Your task to perform on an android device: Open Yahoo.com Image 0: 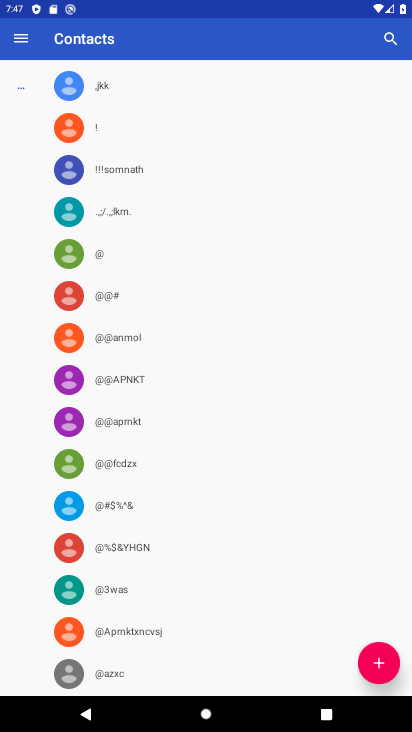
Step 0: press home button
Your task to perform on an android device: Open Yahoo.com Image 1: 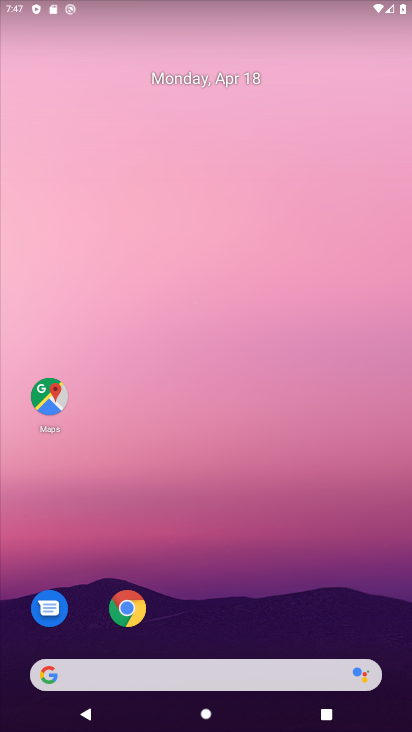
Step 1: click (125, 608)
Your task to perform on an android device: Open Yahoo.com Image 2: 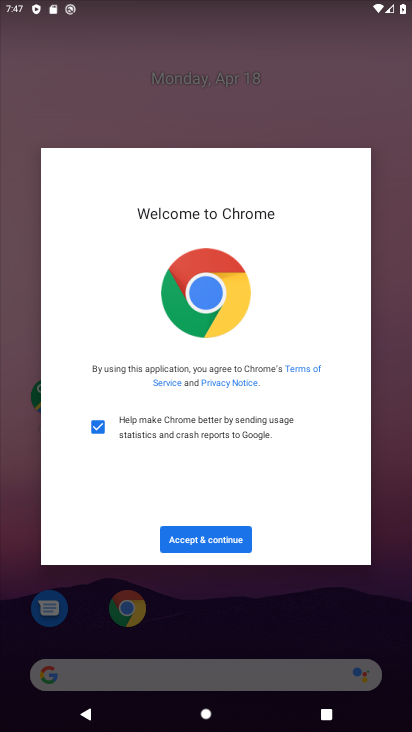
Step 2: click (200, 536)
Your task to perform on an android device: Open Yahoo.com Image 3: 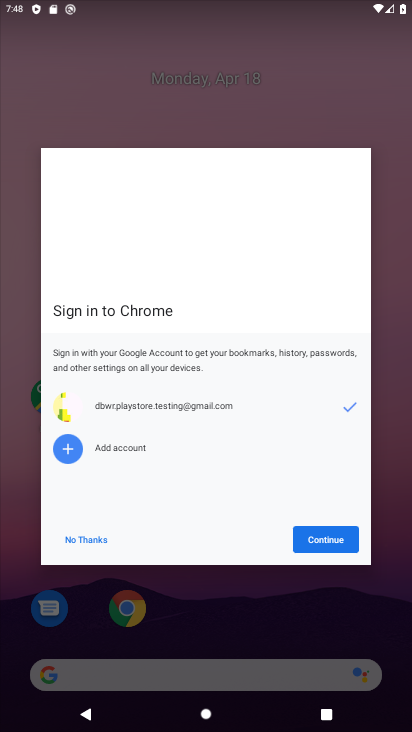
Step 3: click (318, 537)
Your task to perform on an android device: Open Yahoo.com Image 4: 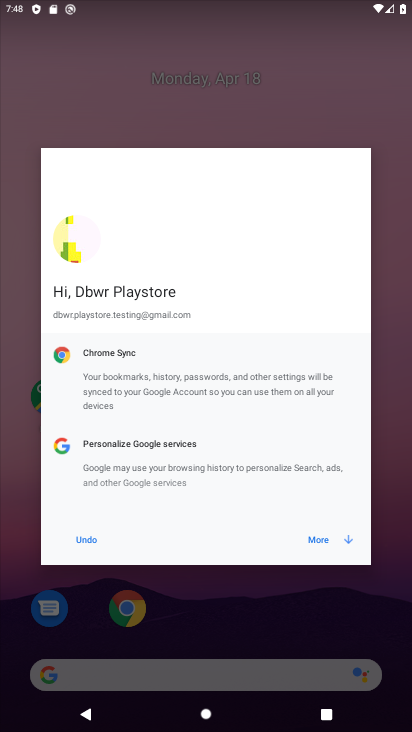
Step 4: click (318, 537)
Your task to perform on an android device: Open Yahoo.com Image 5: 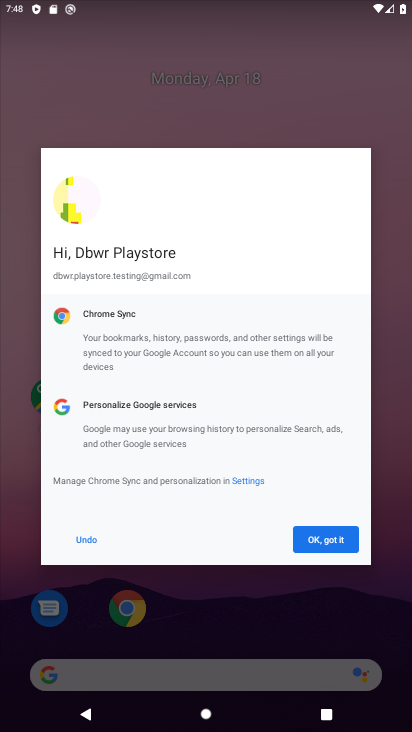
Step 5: click (318, 537)
Your task to perform on an android device: Open Yahoo.com Image 6: 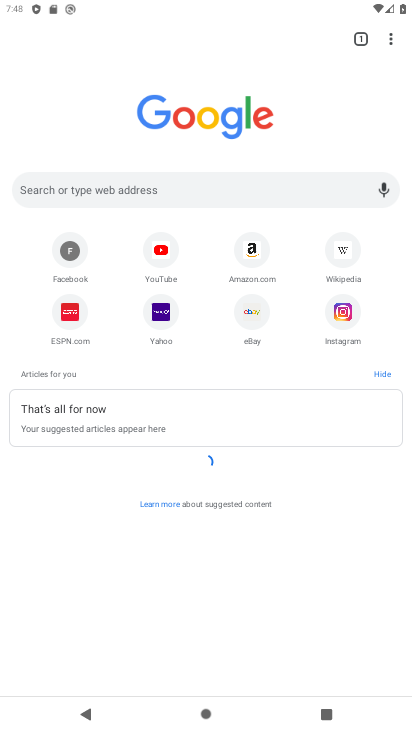
Step 6: click (387, 36)
Your task to perform on an android device: Open Yahoo.com Image 7: 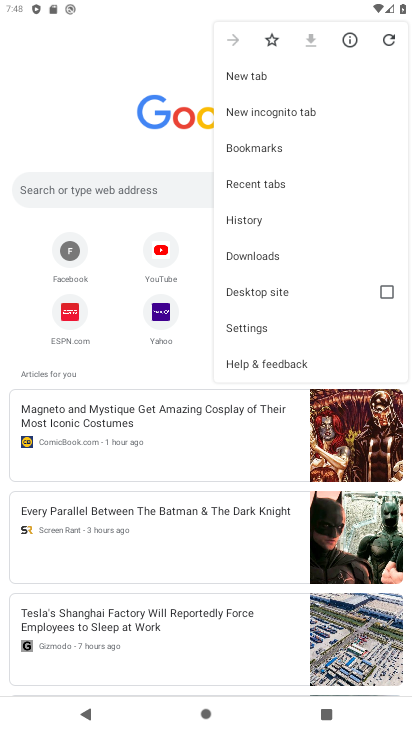
Step 7: click (276, 183)
Your task to perform on an android device: Open Yahoo.com Image 8: 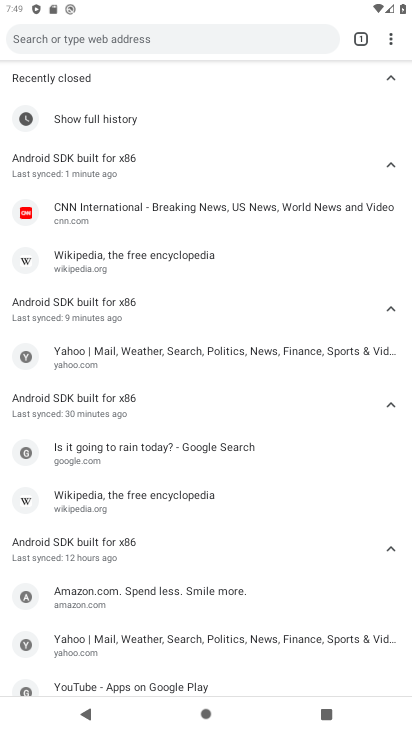
Step 8: task complete